Your task to perform on an android device: open app "DuckDuckGo Privacy Browser" (install if not already installed) and enter user name: "cleaving@outlook.com" and password: "freighters" Image 0: 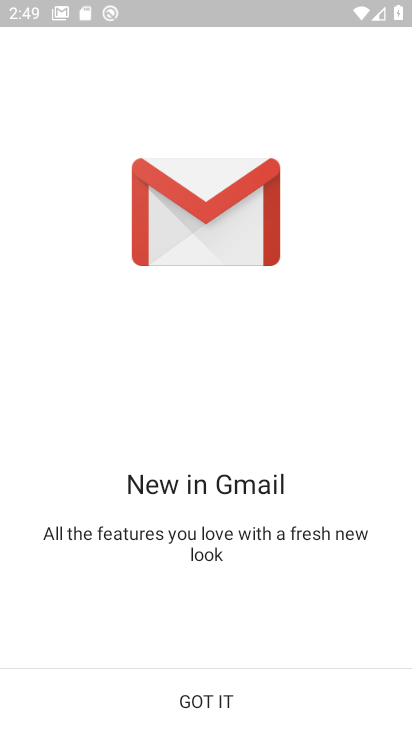
Step 0: click (230, 717)
Your task to perform on an android device: open app "DuckDuckGo Privacy Browser" (install if not already installed) and enter user name: "cleaving@outlook.com" and password: "freighters" Image 1: 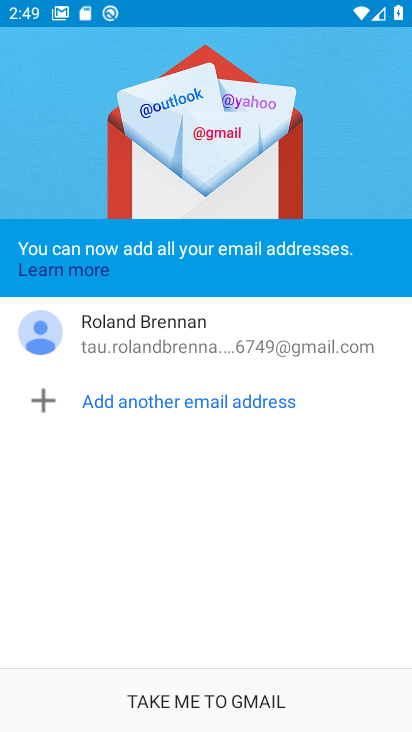
Step 1: click (202, 702)
Your task to perform on an android device: open app "DuckDuckGo Privacy Browser" (install if not already installed) and enter user name: "cleaving@outlook.com" and password: "freighters" Image 2: 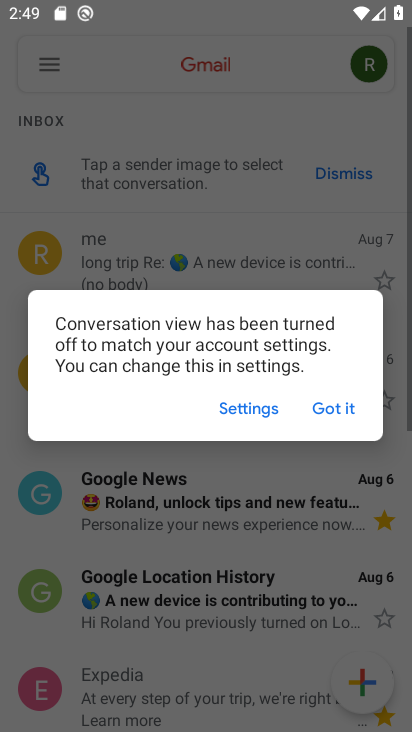
Step 2: click (342, 407)
Your task to perform on an android device: open app "DuckDuckGo Privacy Browser" (install if not already installed) and enter user name: "cleaving@outlook.com" and password: "freighters" Image 3: 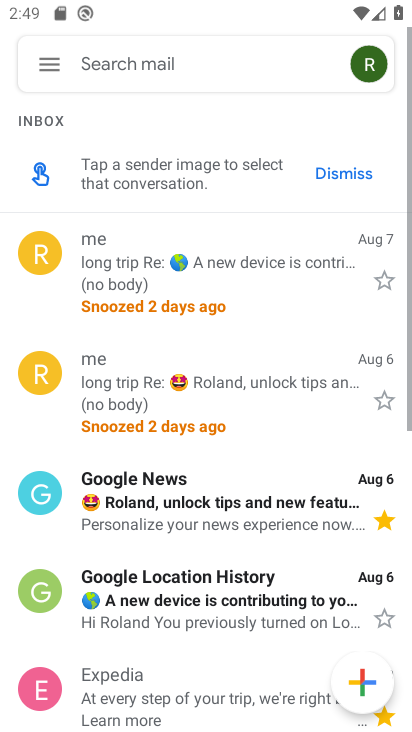
Step 3: press back button
Your task to perform on an android device: open app "DuckDuckGo Privacy Browser" (install if not already installed) and enter user name: "cleaving@outlook.com" and password: "freighters" Image 4: 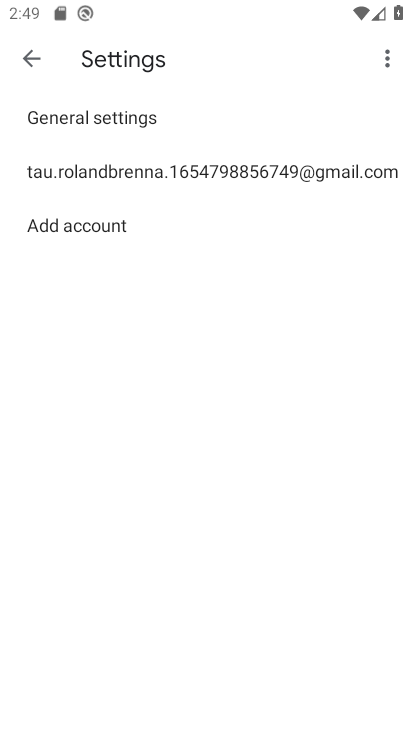
Step 4: press back button
Your task to perform on an android device: open app "DuckDuckGo Privacy Browser" (install if not already installed) and enter user name: "cleaving@outlook.com" and password: "freighters" Image 5: 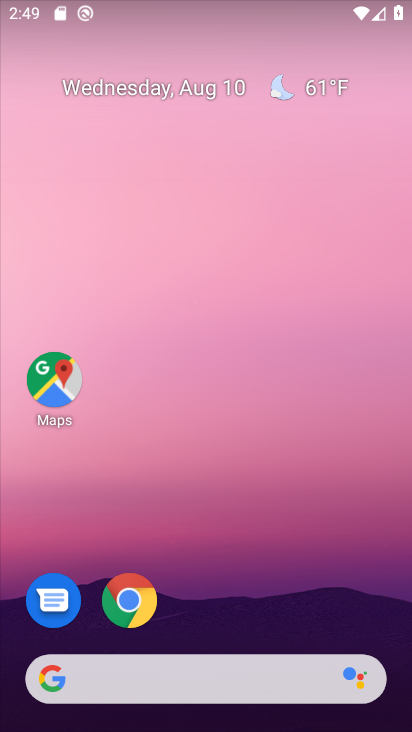
Step 5: drag from (177, 534) to (186, 153)
Your task to perform on an android device: open app "DuckDuckGo Privacy Browser" (install if not already installed) and enter user name: "cleaving@outlook.com" and password: "freighters" Image 6: 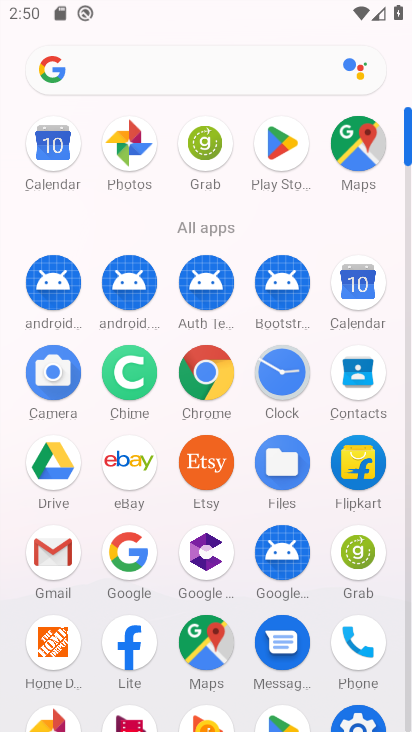
Step 6: click (275, 136)
Your task to perform on an android device: open app "DuckDuckGo Privacy Browser" (install if not already installed) and enter user name: "cleaving@outlook.com" and password: "freighters" Image 7: 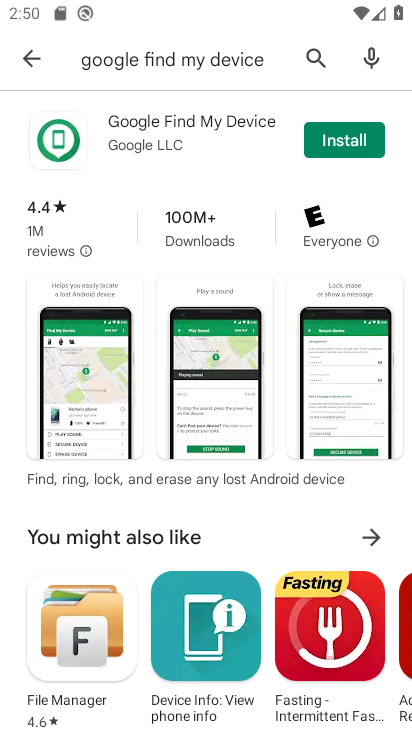
Step 7: click (309, 60)
Your task to perform on an android device: open app "DuckDuckGo Privacy Browser" (install if not already installed) and enter user name: "cleaving@outlook.com" and password: "freighters" Image 8: 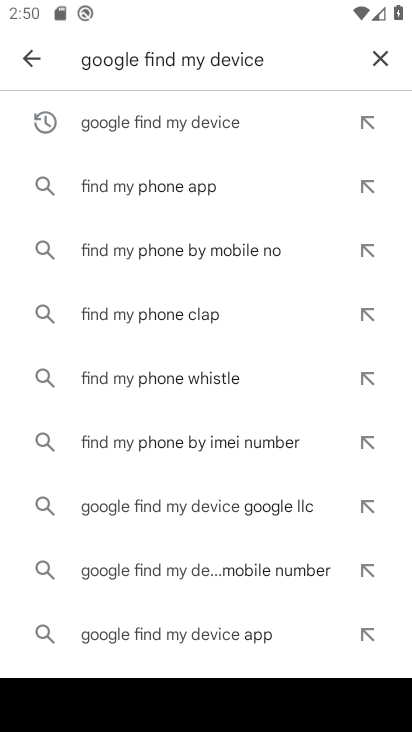
Step 8: click (385, 51)
Your task to perform on an android device: open app "DuckDuckGo Privacy Browser" (install if not already installed) and enter user name: "cleaving@outlook.com" and password: "freighters" Image 9: 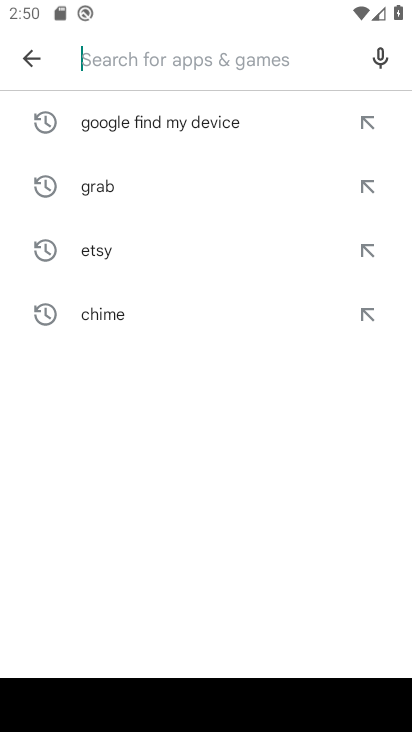
Step 9: click (149, 64)
Your task to perform on an android device: open app "DuckDuckGo Privacy Browser" (install if not already installed) and enter user name: "cleaving@outlook.com" and password: "freighters" Image 10: 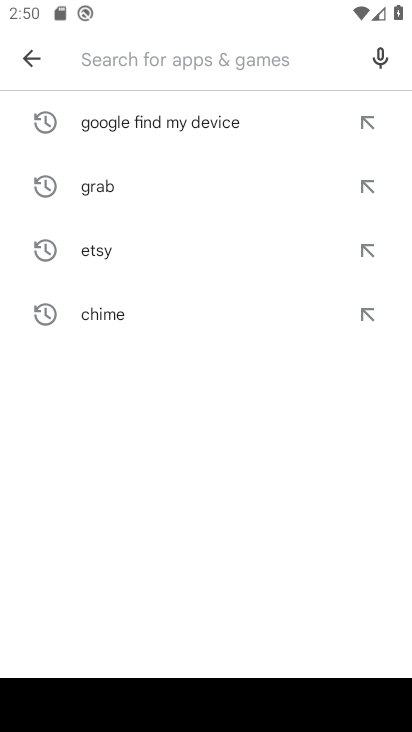
Step 10: type "DuckDuckGo Privacy Browser"
Your task to perform on an android device: open app "DuckDuckGo Privacy Browser" (install if not already installed) and enter user name: "cleaving@outlook.com" and password: "freighters" Image 11: 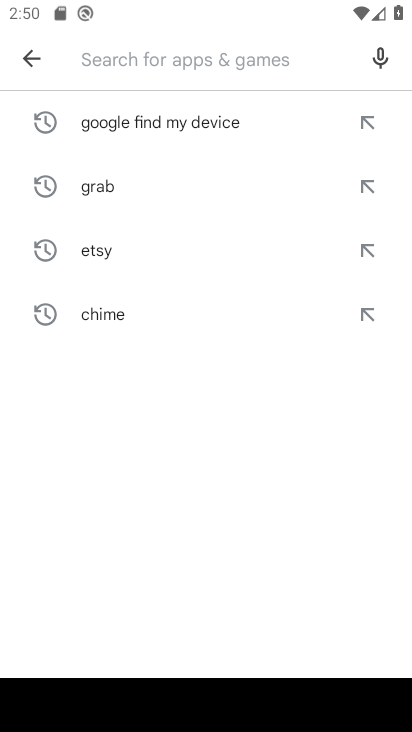
Step 11: click (219, 389)
Your task to perform on an android device: open app "DuckDuckGo Privacy Browser" (install if not already installed) and enter user name: "cleaving@outlook.com" and password: "freighters" Image 12: 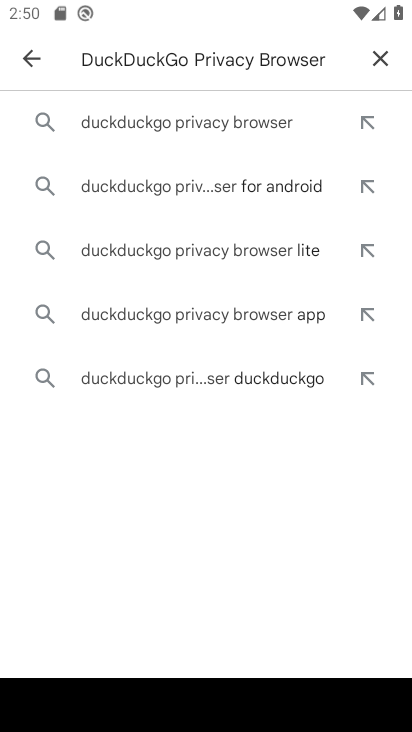
Step 12: click (182, 121)
Your task to perform on an android device: open app "DuckDuckGo Privacy Browser" (install if not already installed) and enter user name: "cleaving@outlook.com" and password: "freighters" Image 13: 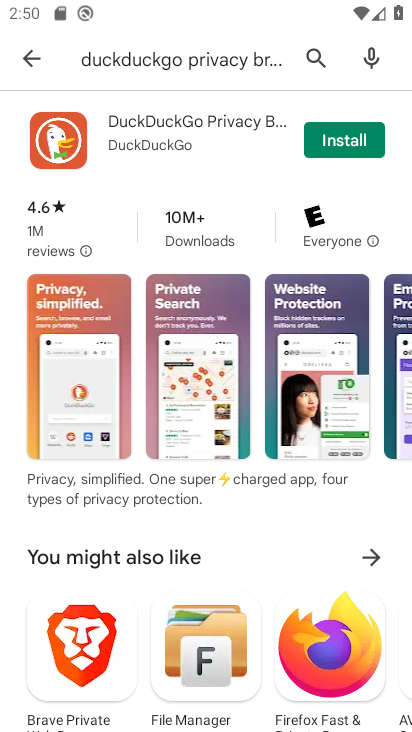
Step 13: click (343, 139)
Your task to perform on an android device: open app "DuckDuckGo Privacy Browser" (install if not already installed) and enter user name: "cleaving@outlook.com" and password: "freighters" Image 14: 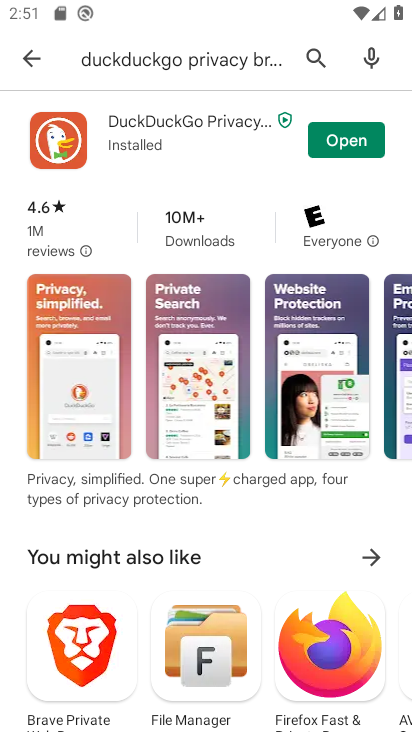
Step 14: click (334, 127)
Your task to perform on an android device: open app "DuckDuckGo Privacy Browser" (install if not already installed) and enter user name: "cleaving@outlook.com" and password: "freighters" Image 15: 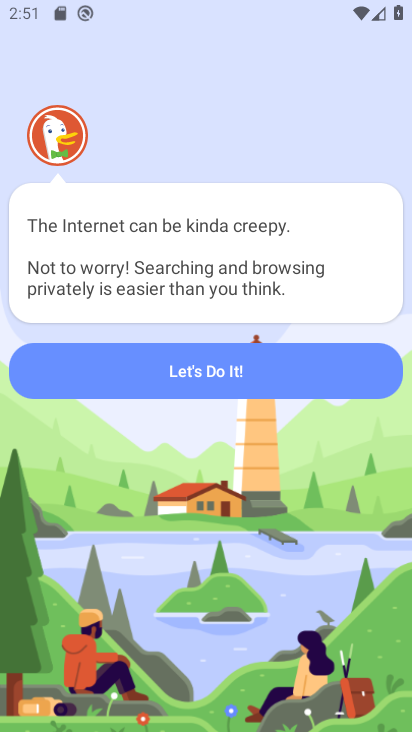
Step 15: click (151, 378)
Your task to perform on an android device: open app "DuckDuckGo Privacy Browser" (install if not already installed) and enter user name: "cleaving@outlook.com" and password: "freighters" Image 16: 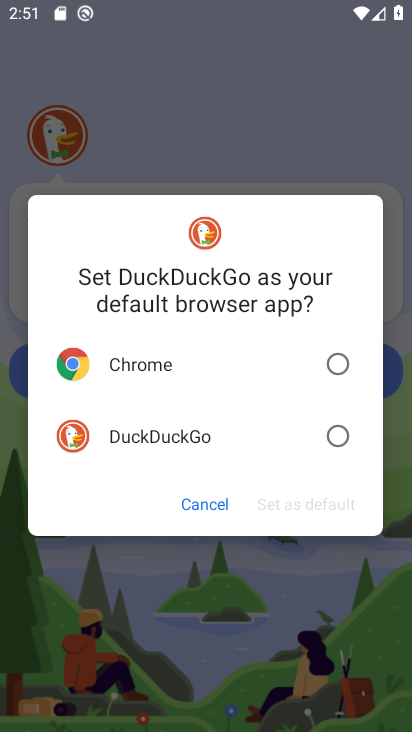
Step 16: click (200, 411)
Your task to perform on an android device: open app "DuckDuckGo Privacy Browser" (install if not already installed) and enter user name: "cleaving@outlook.com" and password: "freighters" Image 17: 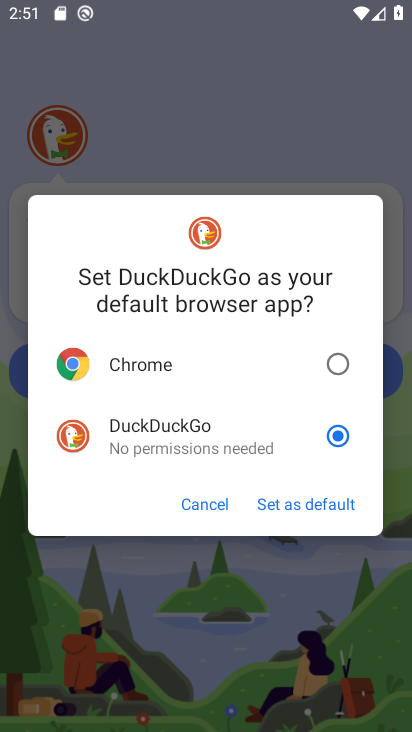
Step 17: click (227, 504)
Your task to perform on an android device: open app "DuckDuckGo Privacy Browser" (install if not already installed) and enter user name: "cleaving@outlook.com" and password: "freighters" Image 18: 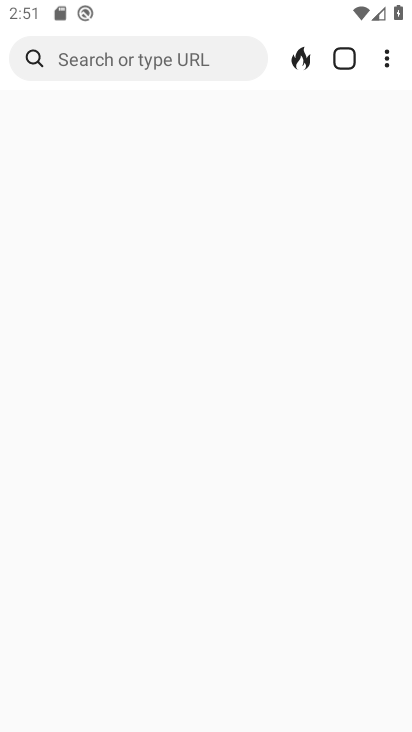
Step 18: click (211, 387)
Your task to perform on an android device: open app "DuckDuckGo Privacy Browser" (install if not already installed) and enter user name: "cleaving@outlook.com" and password: "freighters" Image 19: 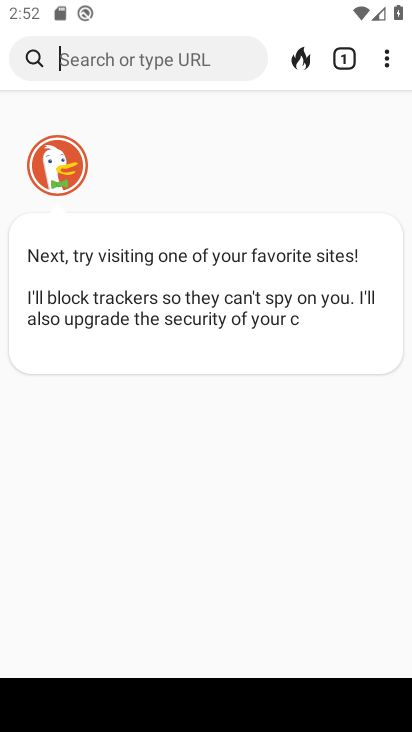
Step 19: task complete